Your task to perform on an android device: Open the map Image 0: 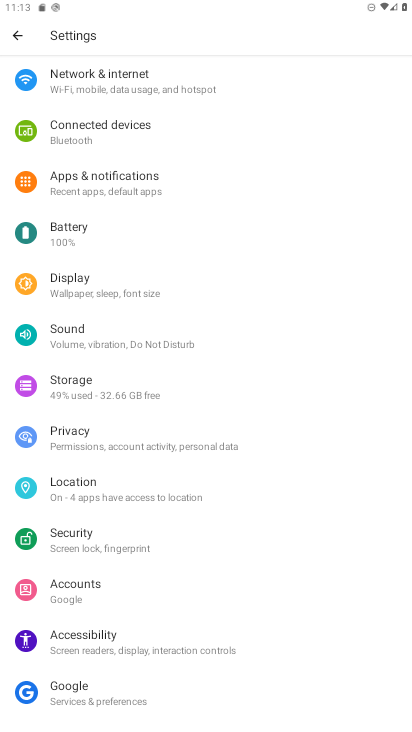
Step 0: press home button
Your task to perform on an android device: Open the map Image 1: 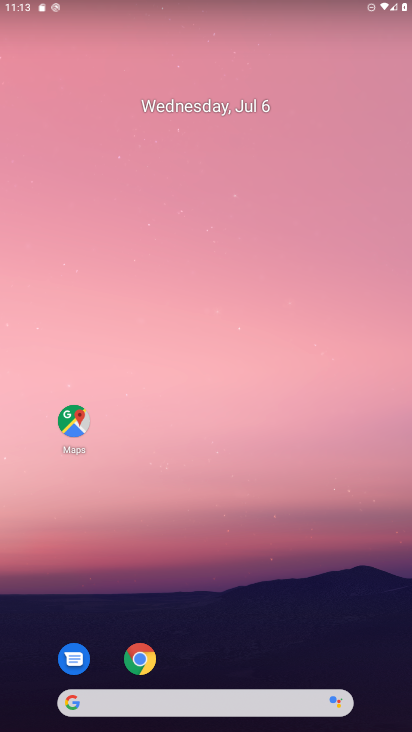
Step 1: click (105, 408)
Your task to perform on an android device: Open the map Image 2: 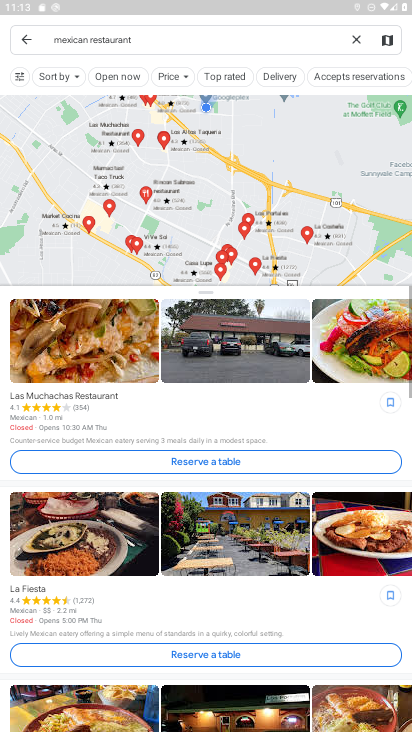
Step 2: task complete